Your task to perform on an android device: Show me the alarms in the clock app Image 0: 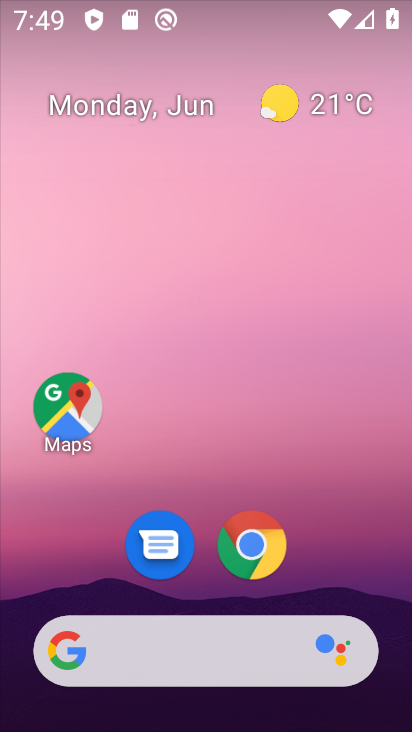
Step 0: drag from (318, 567) to (321, 90)
Your task to perform on an android device: Show me the alarms in the clock app Image 1: 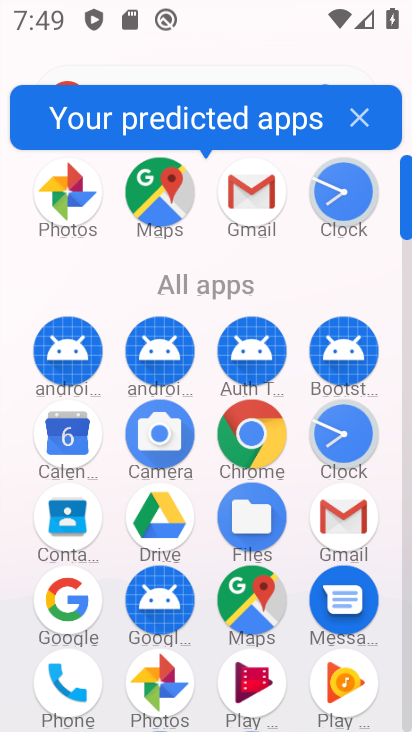
Step 1: click (341, 445)
Your task to perform on an android device: Show me the alarms in the clock app Image 2: 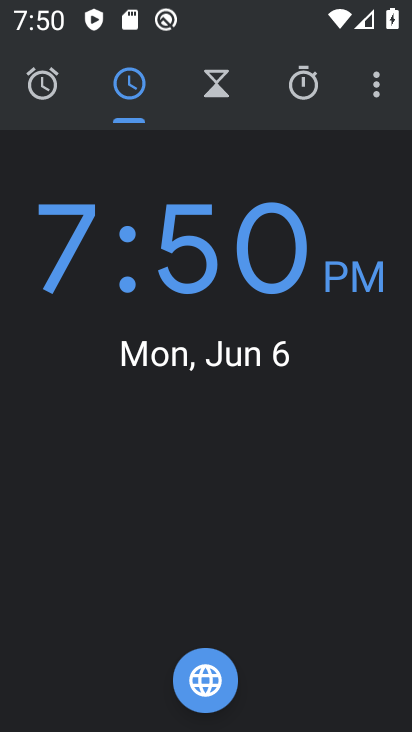
Step 2: click (54, 92)
Your task to perform on an android device: Show me the alarms in the clock app Image 3: 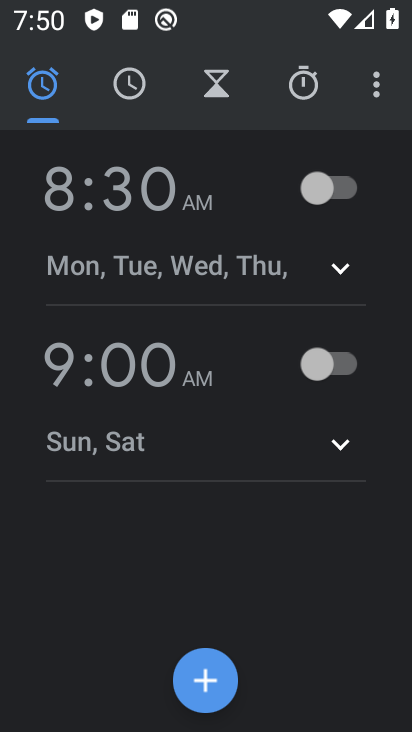
Step 3: task complete